Your task to perform on an android device: turn off translation in the chrome app Image 0: 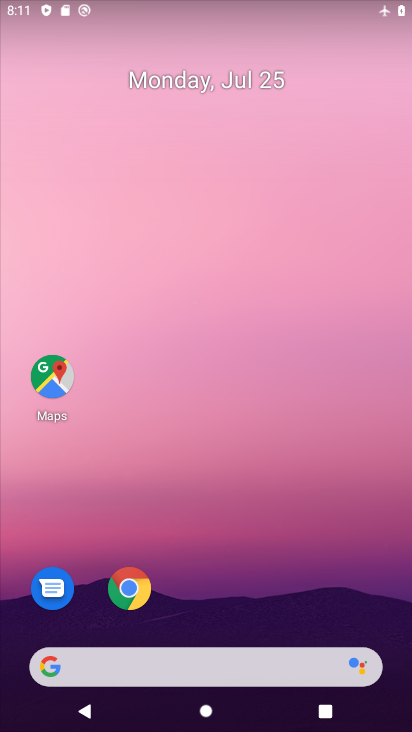
Step 0: drag from (211, 645) to (258, 297)
Your task to perform on an android device: turn off translation in the chrome app Image 1: 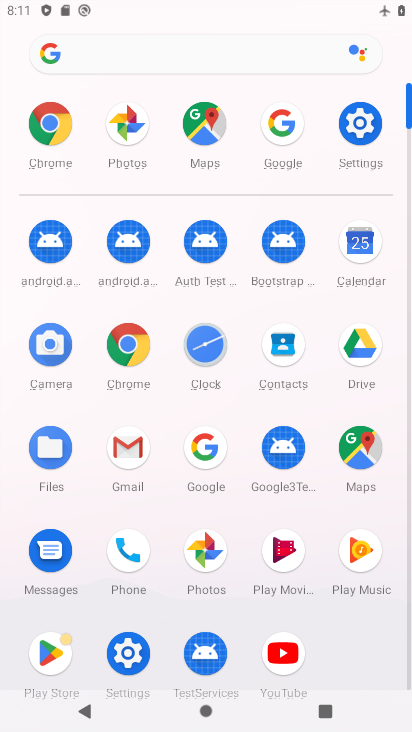
Step 1: click (134, 339)
Your task to perform on an android device: turn off translation in the chrome app Image 2: 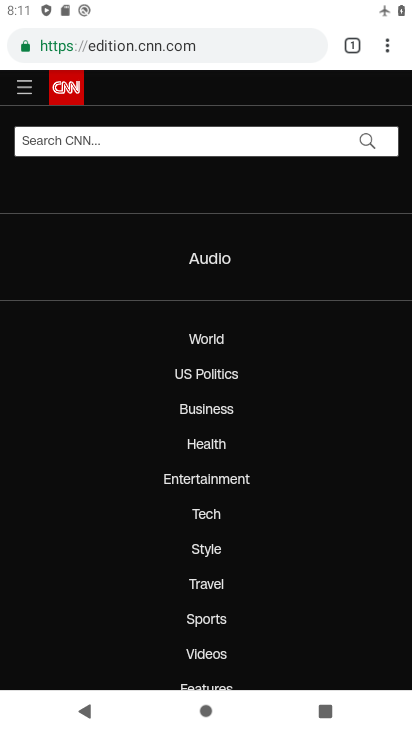
Step 2: click (393, 42)
Your task to perform on an android device: turn off translation in the chrome app Image 3: 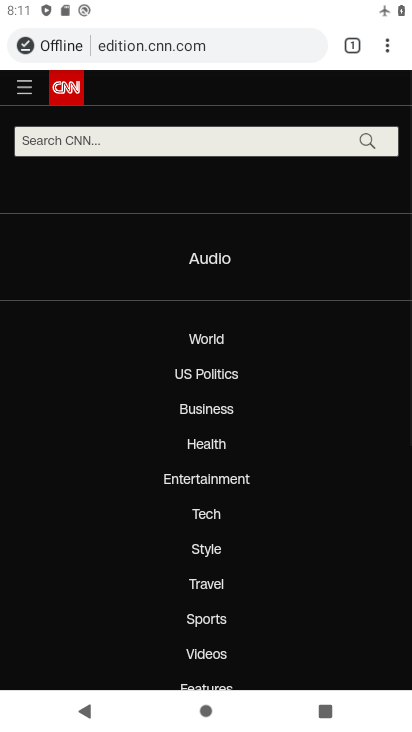
Step 3: click (393, 42)
Your task to perform on an android device: turn off translation in the chrome app Image 4: 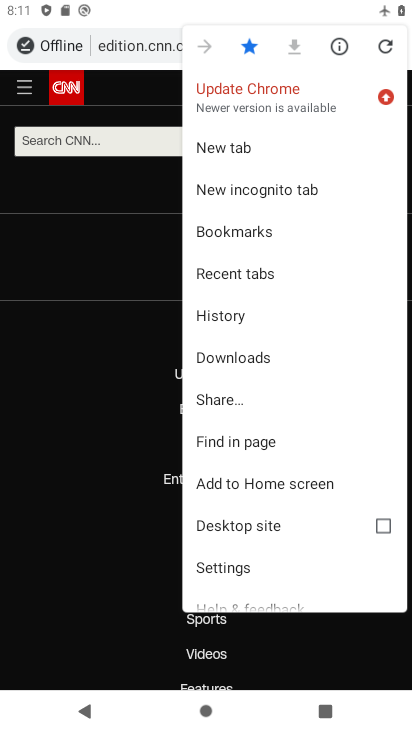
Step 4: click (217, 561)
Your task to perform on an android device: turn off translation in the chrome app Image 5: 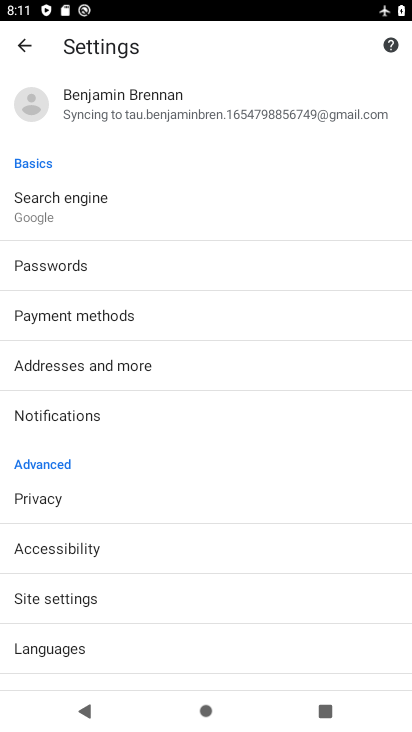
Step 5: click (106, 654)
Your task to perform on an android device: turn off translation in the chrome app Image 6: 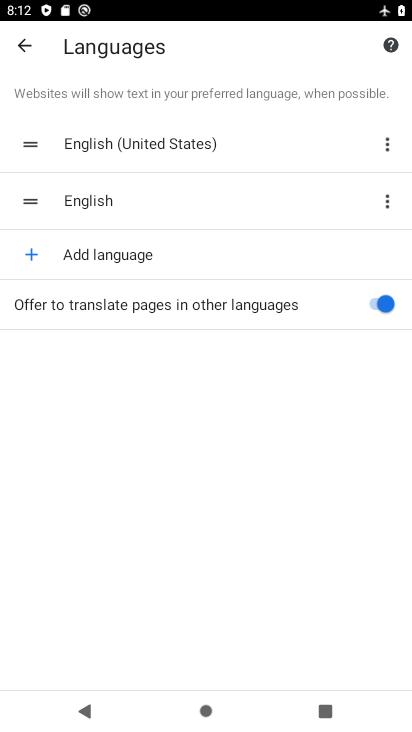
Step 6: click (375, 306)
Your task to perform on an android device: turn off translation in the chrome app Image 7: 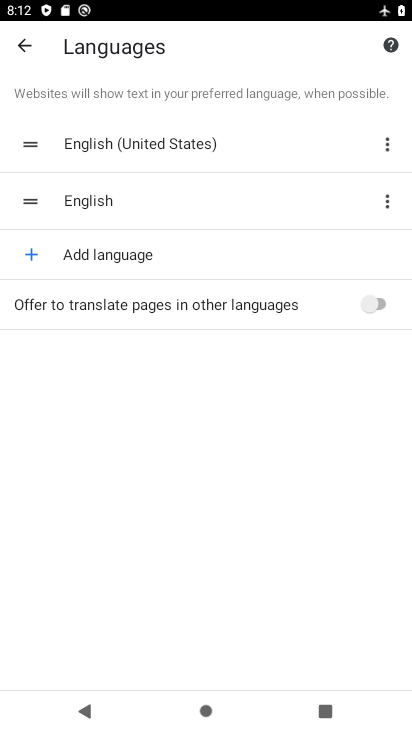
Step 7: task complete